Your task to perform on an android device: turn on location history Image 0: 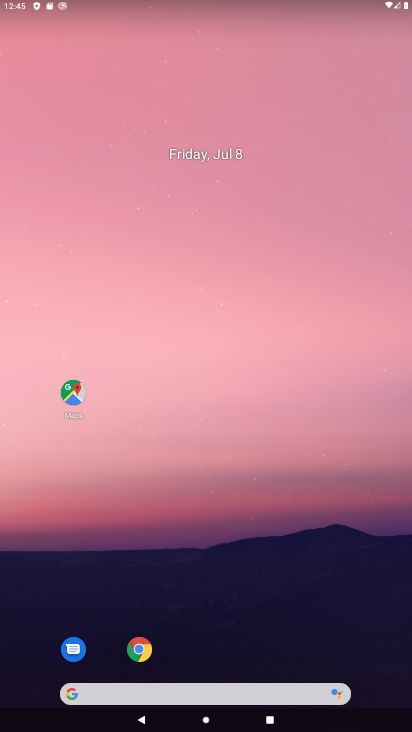
Step 0: drag from (17, 692) to (393, 538)
Your task to perform on an android device: turn on location history Image 1: 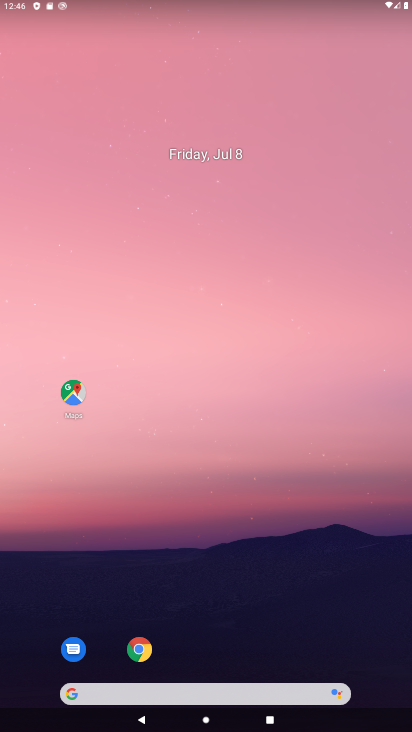
Step 1: drag from (37, 693) to (406, 260)
Your task to perform on an android device: turn on location history Image 2: 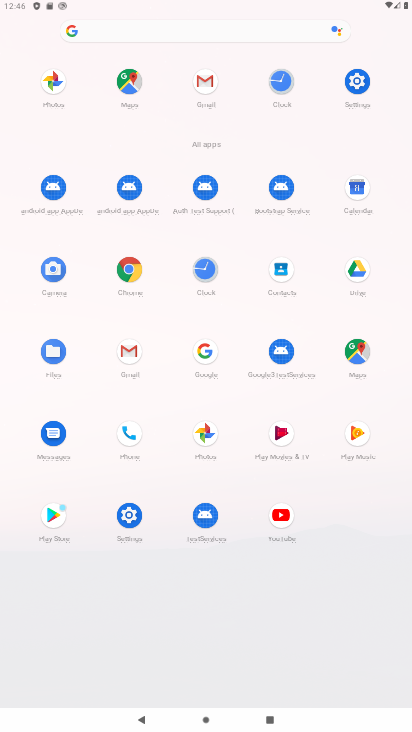
Step 2: click (130, 523)
Your task to perform on an android device: turn on location history Image 3: 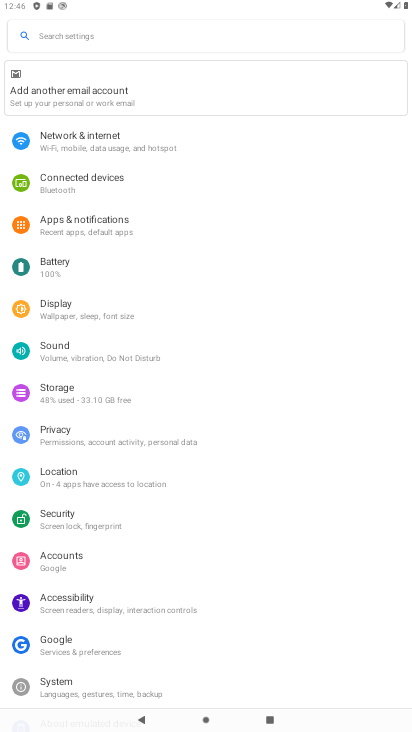
Step 3: drag from (264, 648) to (364, 177)
Your task to perform on an android device: turn on location history Image 4: 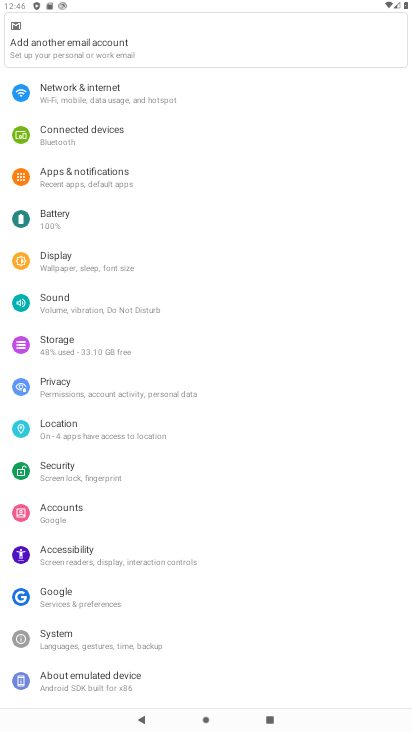
Step 4: drag from (295, 572) to (360, 164)
Your task to perform on an android device: turn on location history Image 5: 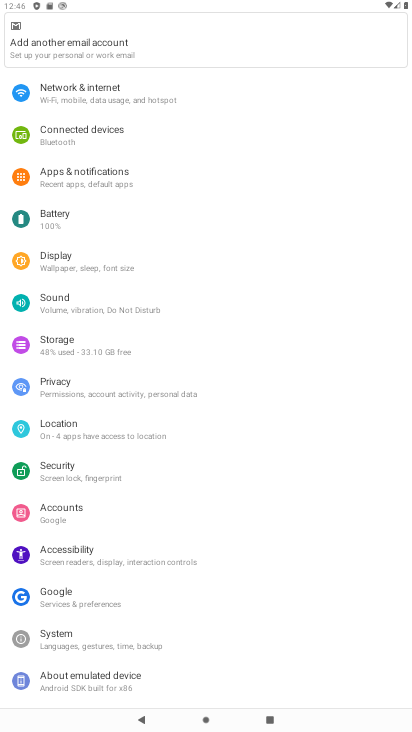
Step 5: click (47, 420)
Your task to perform on an android device: turn on location history Image 6: 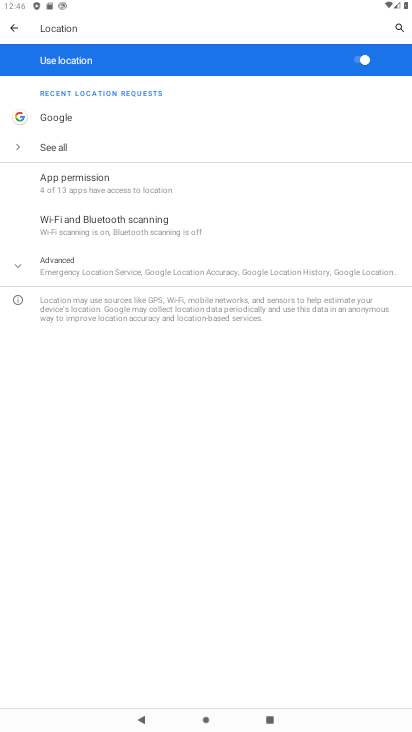
Step 6: task complete